Your task to perform on an android device: Open notification settings Image 0: 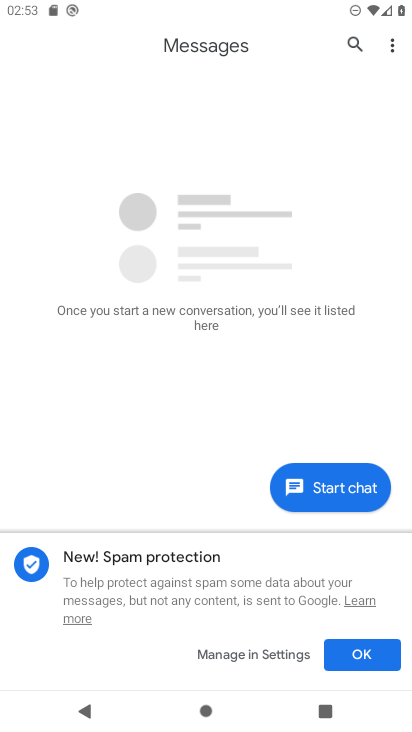
Step 0: press home button
Your task to perform on an android device: Open notification settings Image 1: 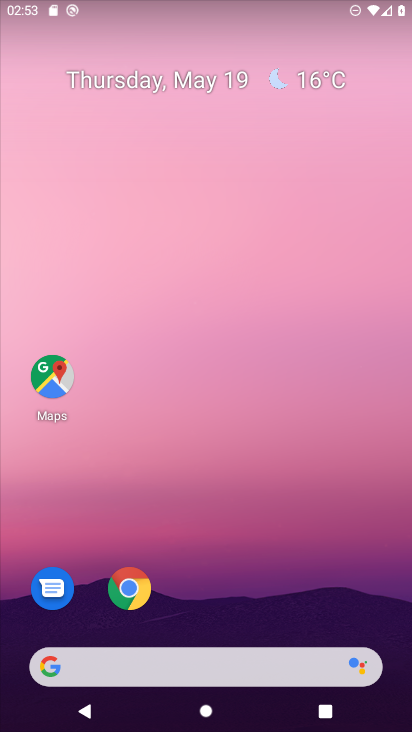
Step 1: drag from (270, 617) to (274, 14)
Your task to perform on an android device: Open notification settings Image 2: 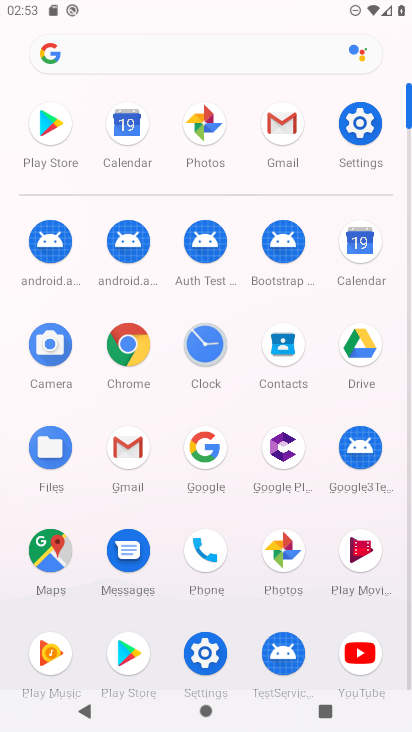
Step 2: click (358, 151)
Your task to perform on an android device: Open notification settings Image 3: 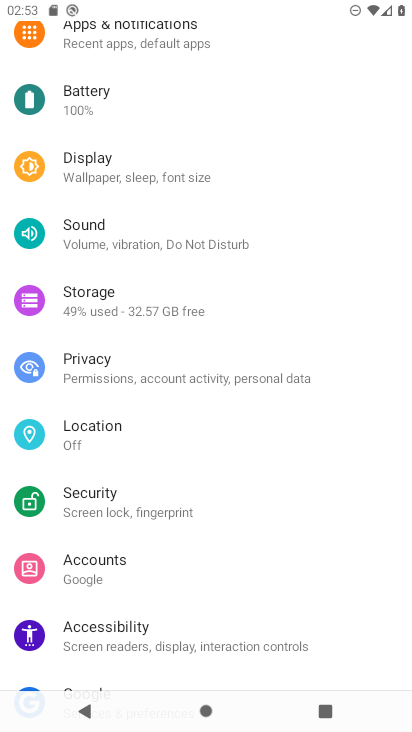
Step 3: drag from (358, 151) to (373, 350)
Your task to perform on an android device: Open notification settings Image 4: 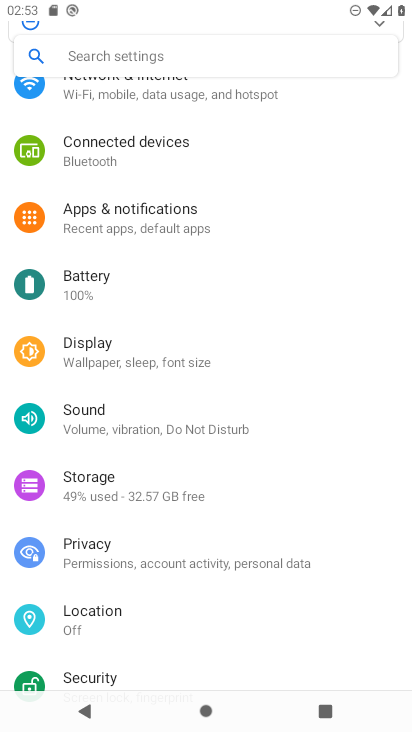
Step 4: click (73, 211)
Your task to perform on an android device: Open notification settings Image 5: 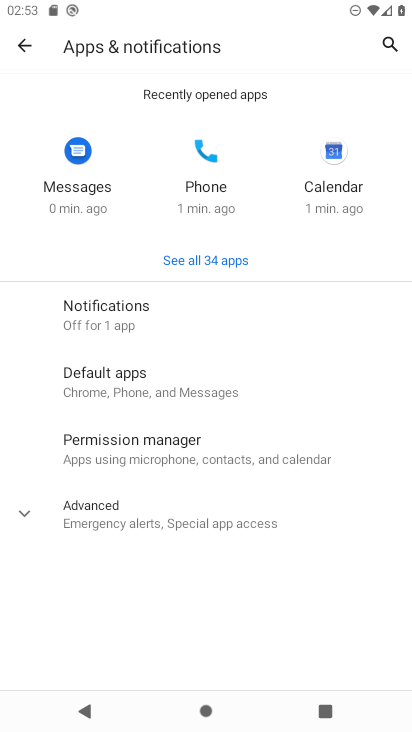
Step 5: task complete